Your task to perform on an android device: Open battery settings Image 0: 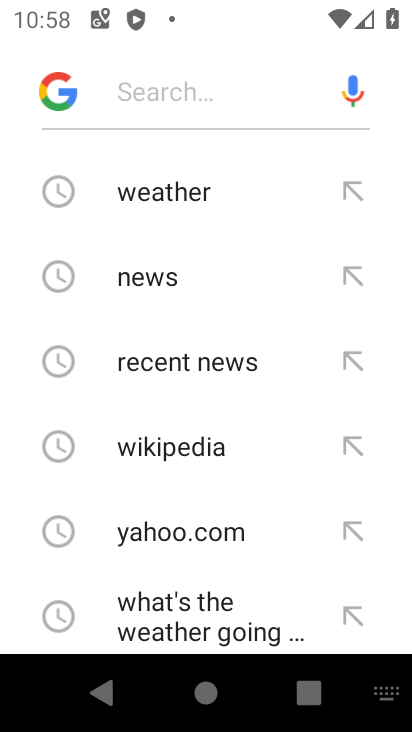
Step 0: press home button
Your task to perform on an android device: Open battery settings Image 1: 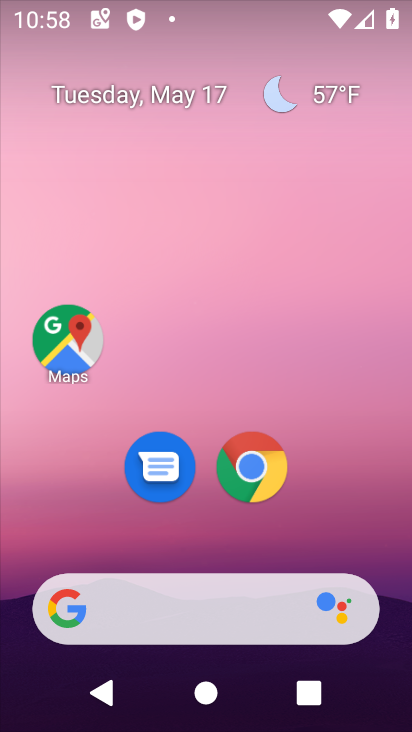
Step 1: drag from (176, 570) to (186, 137)
Your task to perform on an android device: Open battery settings Image 2: 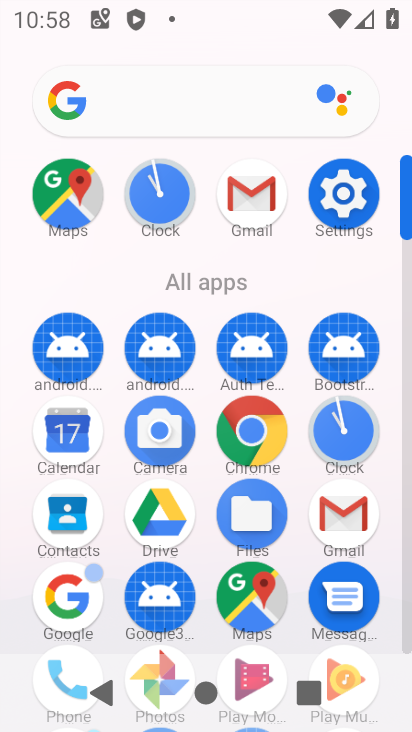
Step 2: click (344, 195)
Your task to perform on an android device: Open battery settings Image 3: 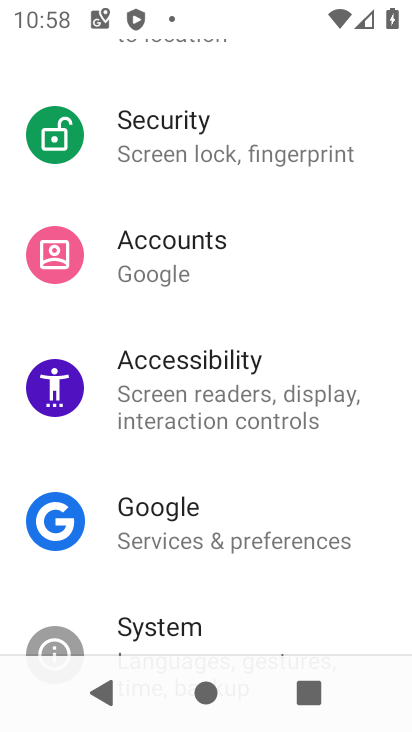
Step 3: drag from (194, 630) to (192, 232)
Your task to perform on an android device: Open battery settings Image 4: 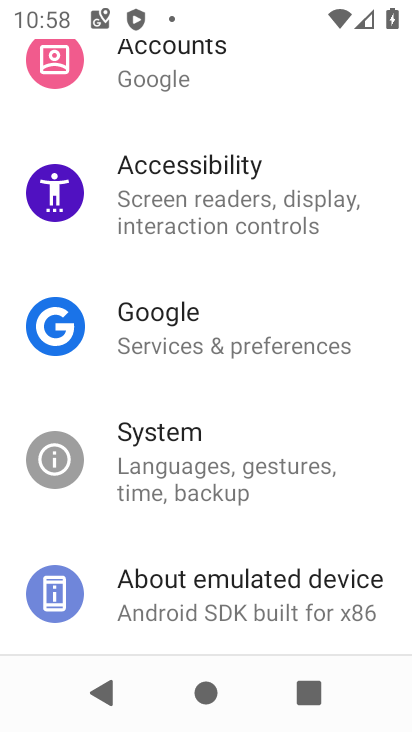
Step 4: drag from (195, 138) to (200, 551)
Your task to perform on an android device: Open battery settings Image 5: 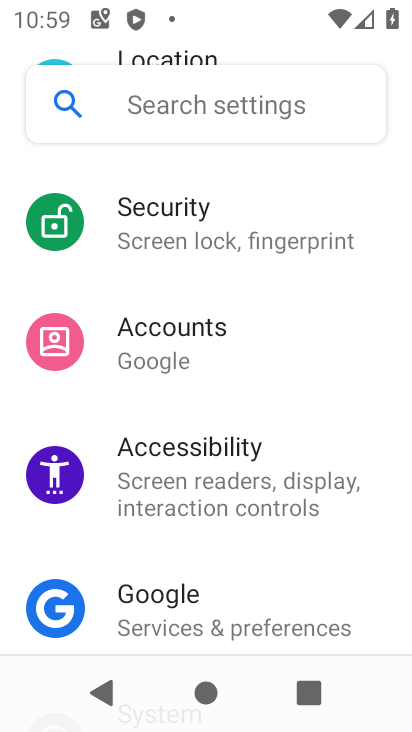
Step 5: drag from (185, 174) to (235, 513)
Your task to perform on an android device: Open battery settings Image 6: 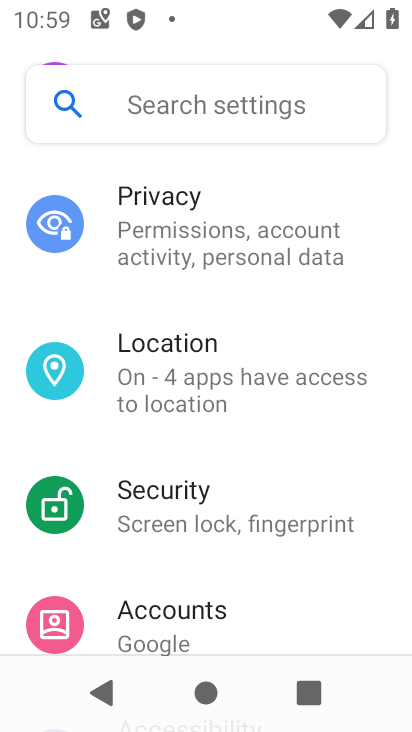
Step 6: drag from (207, 183) to (236, 494)
Your task to perform on an android device: Open battery settings Image 7: 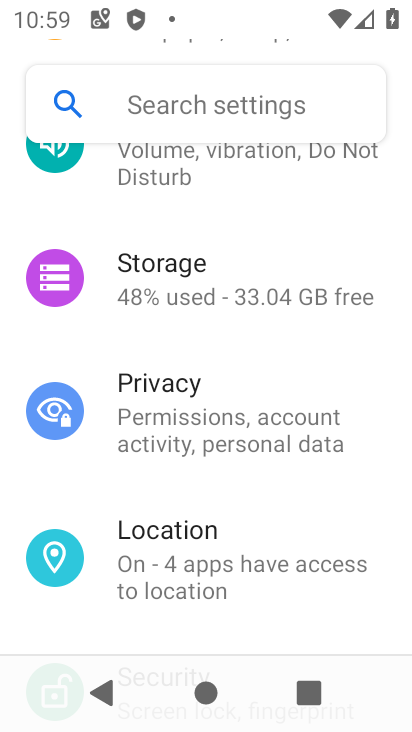
Step 7: drag from (169, 207) to (177, 523)
Your task to perform on an android device: Open battery settings Image 8: 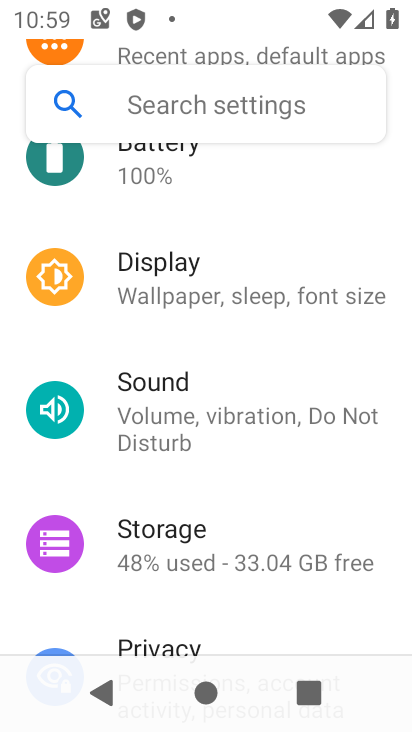
Step 8: drag from (192, 177) to (214, 480)
Your task to perform on an android device: Open battery settings Image 9: 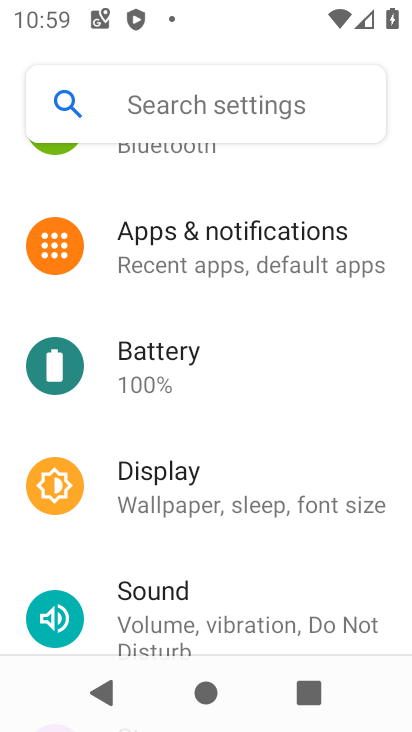
Step 9: click (160, 361)
Your task to perform on an android device: Open battery settings Image 10: 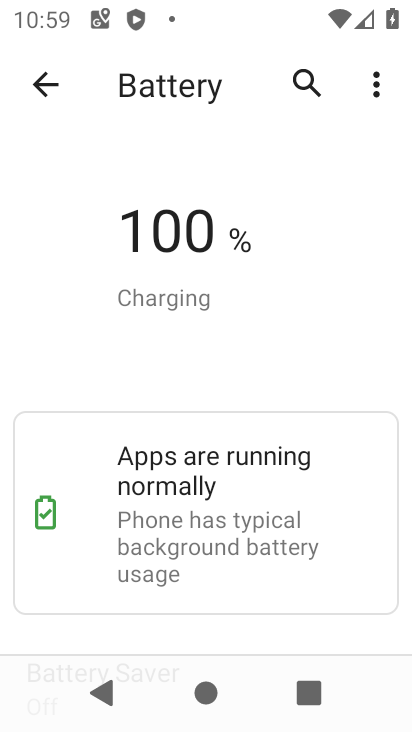
Step 10: click (380, 78)
Your task to perform on an android device: Open battery settings Image 11: 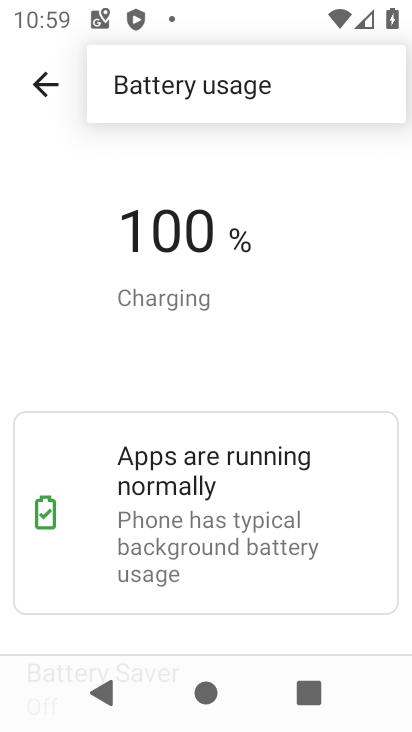
Step 11: click (196, 94)
Your task to perform on an android device: Open battery settings Image 12: 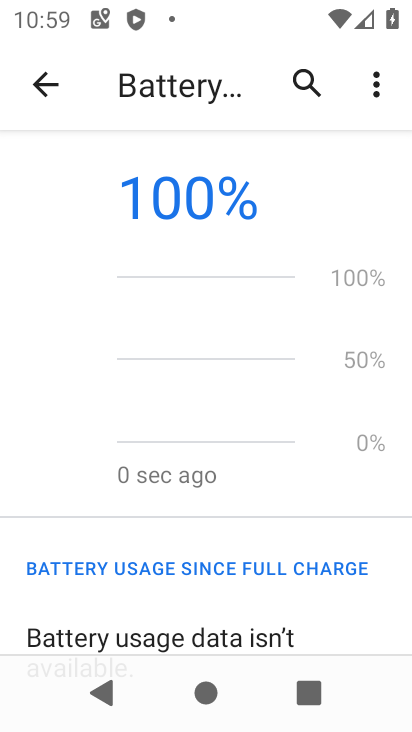
Step 12: task complete